Your task to perform on an android device: What is the recent news? Image 0: 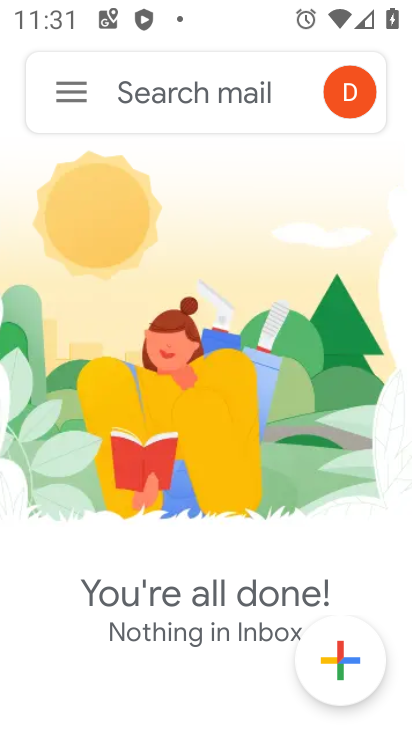
Step 0: press home button
Your task to perform on an android device: What is the recent news? Image 1: 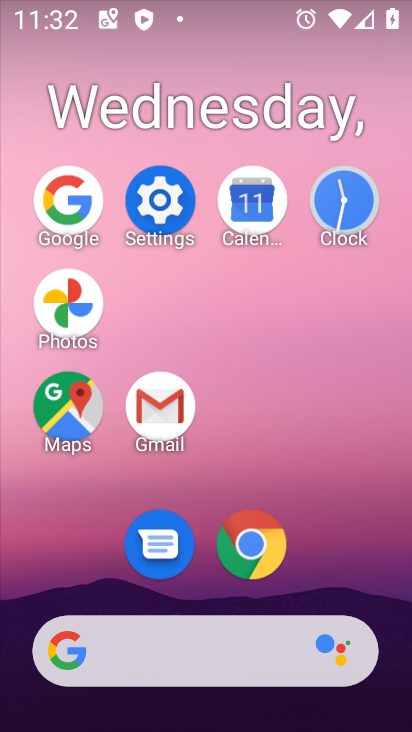
Step 1: click (70, 213)
Your task to perform on an android device: What is the recent news? Image 2: 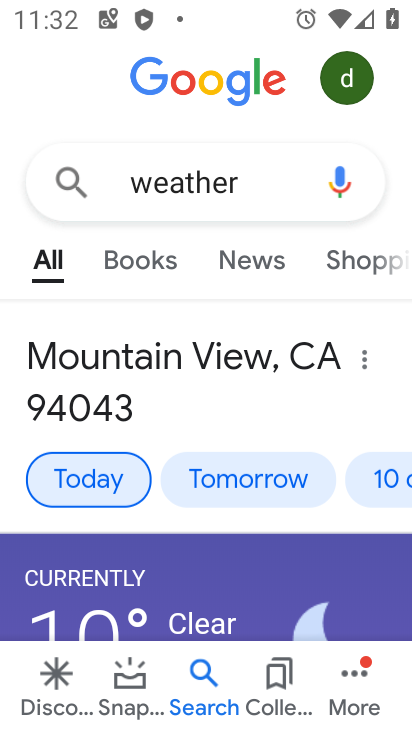
Step 2: click (243, 167)
Your task to perform on an android device: What is the recent news? Image 3: 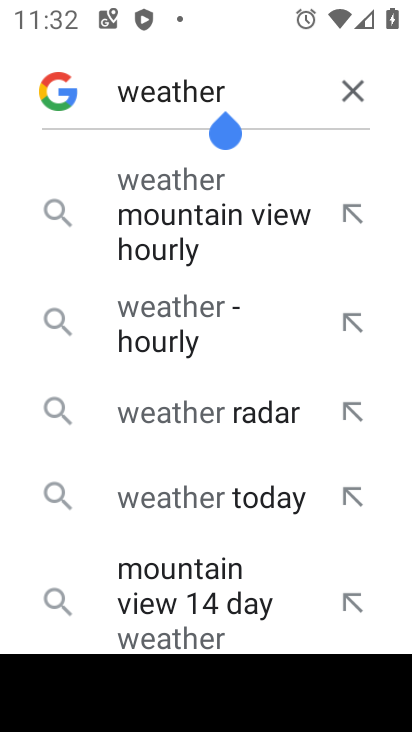
Step 3: click (352, 79)
Your task to perform on an android device: What is the recent news? Image 4: 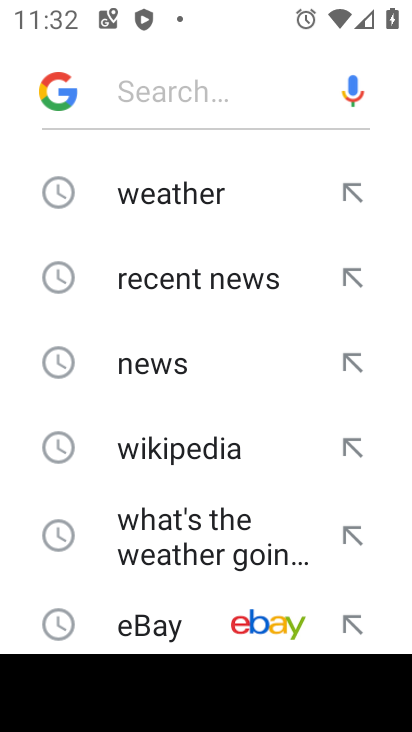
Step 4: click (206, 270)
Your task to perform on an android device: What is the recent news? Image 5: 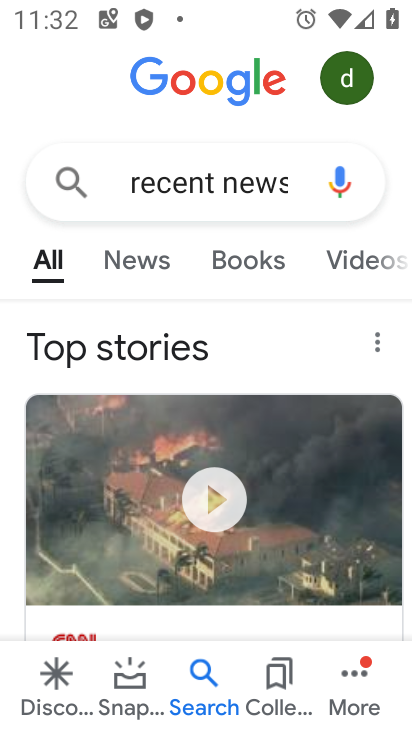
Step 5: task complete